Your task to perform on an android device: change the clock display to analog Image 0: 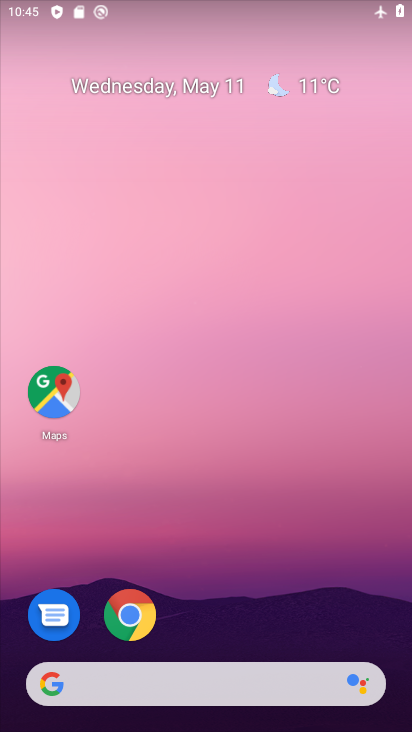
Step 0: drag from (276, 560) to (254, 65)
Your task to perform on an android device: change the clock display to analog Image 1: 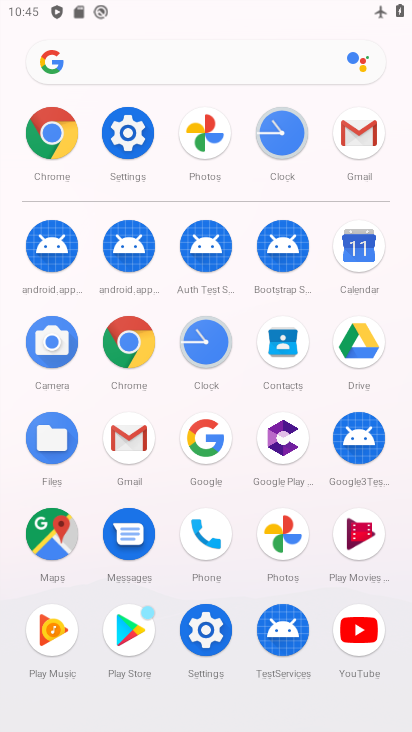
Step 1: click (203, 343)
Your task to perform on an android device: change the clock display to analog Image 2: 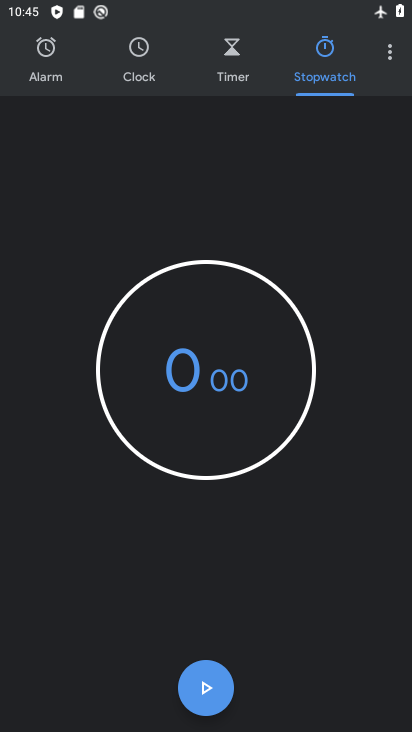
Step 2: click (389, 60)
Your task to perform on an android device: change the clock display to analog Image 3: 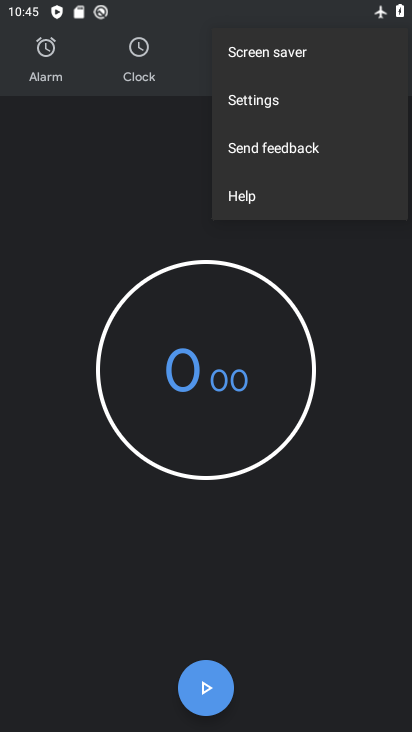
Step 3: click (277, 102)
Your task to perform on an android device: change the clock display to analog Image 4: 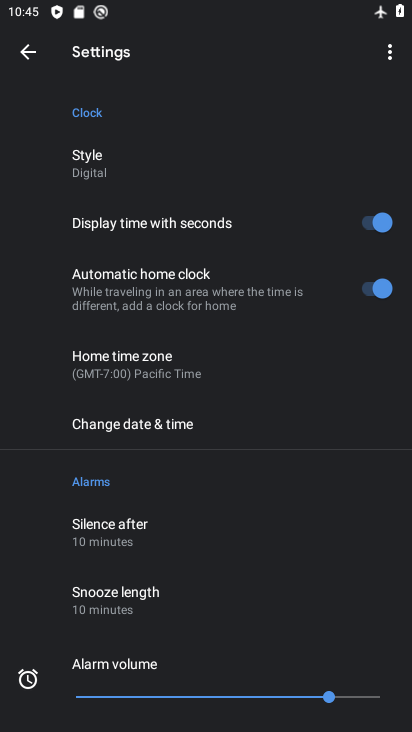
Step 4: click (99, 160)
Your task to perform on an android device: change the clock display to analog Image 5: 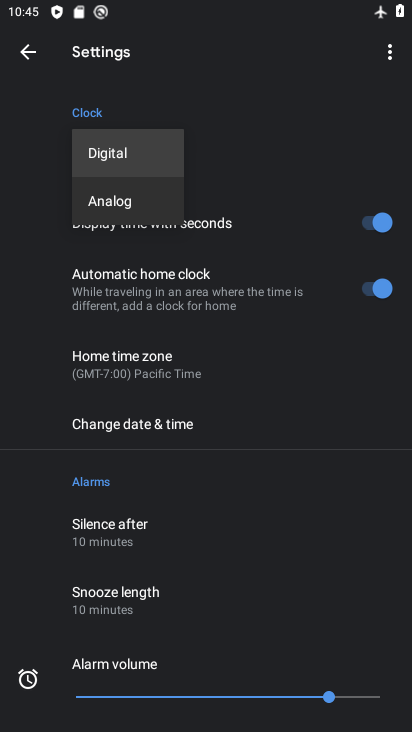
Step 5: click (128, 203)
Your task to perform on an android device: change the clock display to analog Image 6: 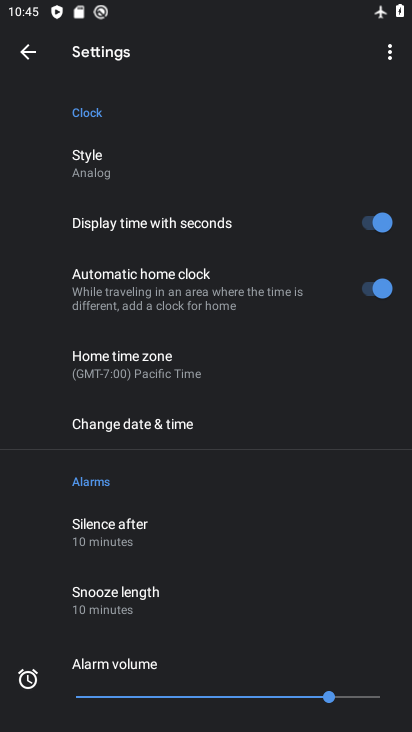
Step 6: task complete